Your task to perform on an android device: Go to privacy settings Image 0: 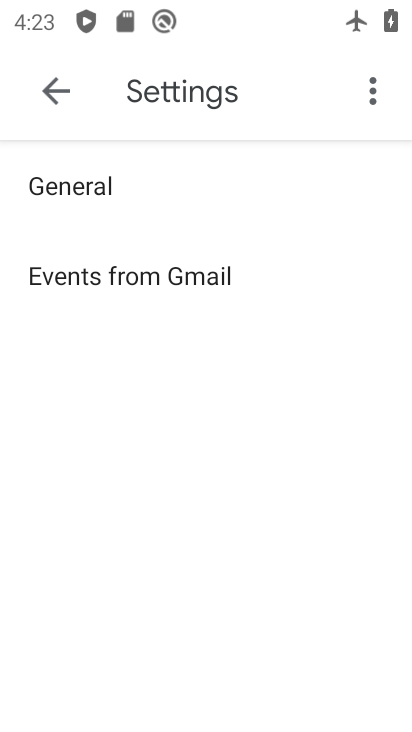
Step 0: press home button
Your task to perform on an android device: Go to privacy settings Image 1: 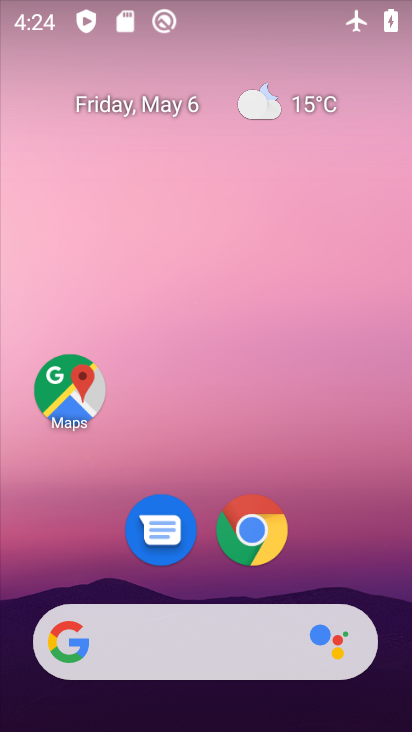
Step 1: drag from (359, 547) to (298, 88)
Your task to perform on an android device: Go to privacy settings Image 2: 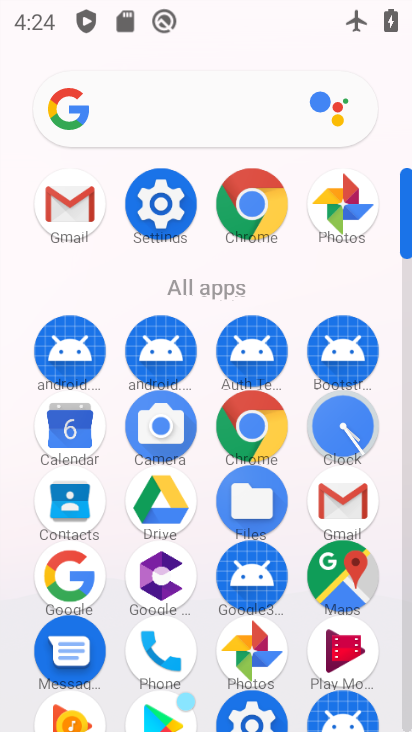
Step 2: click (169, 187)
Your task to perform on an android device: Go to privacy settings Image 3: 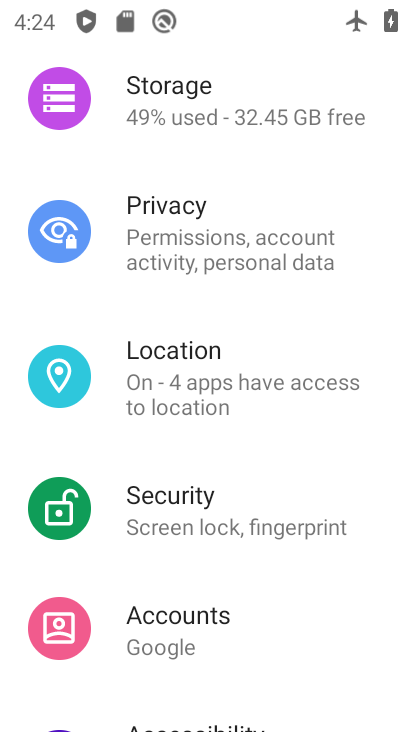
Step 3: click (178, 196)
Your task to perform on an android device: Go to privacy settings Image 4: 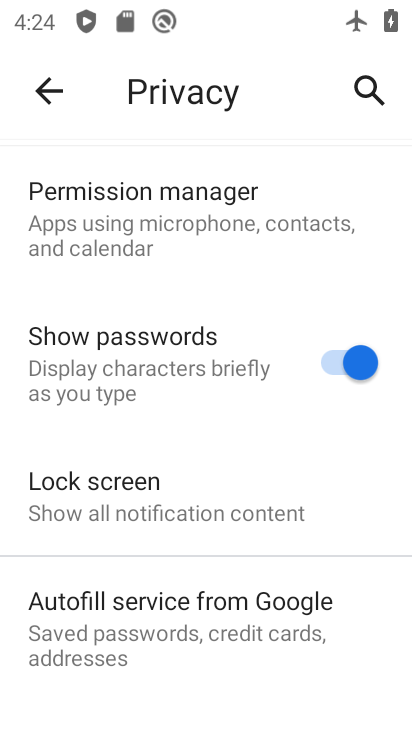
Step 4: task complete